Your task to perform on an android device: How do I get to the nearest T-Mobile Store? Image 0: 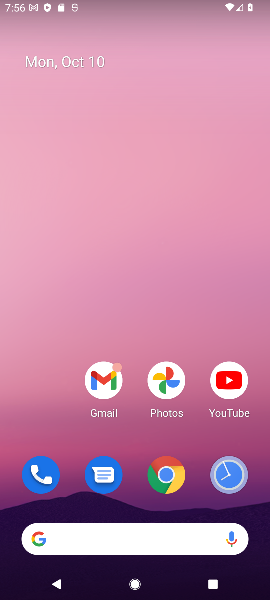
Step 0: drag from (138, 503) to (107, 149)
Your task to perform on an android device: How do I get to the nearest T-Mobile Store? Image 1: 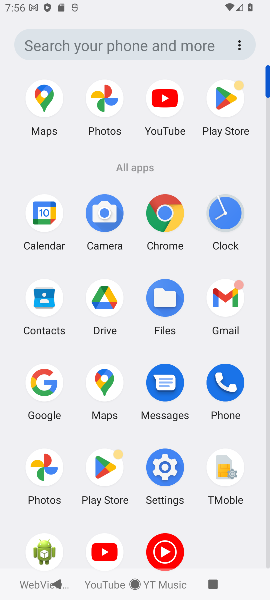
Step 1: click (106, 390)
Your task to perform on an android device: How do I get to the nearest T-Mobile Store? Image 2: 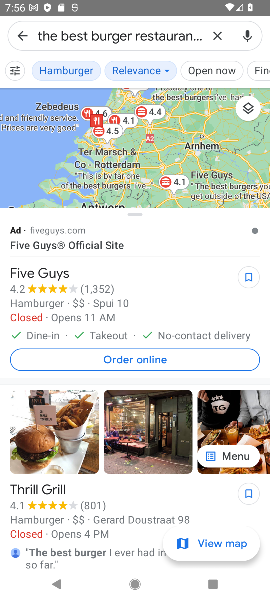
Step 2: click (214, 29)
Your task to perform on an android device: How do I get to the nearest T-Mobile Store? Image 3: 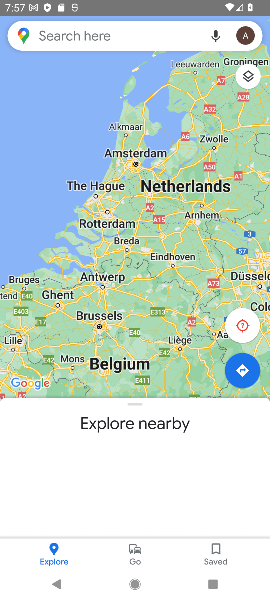
Step 3: type "the nearest T-Mobile Store"
Your task to perform on an android device: How do I get to the nearest T-Mobile Store? Image 4: 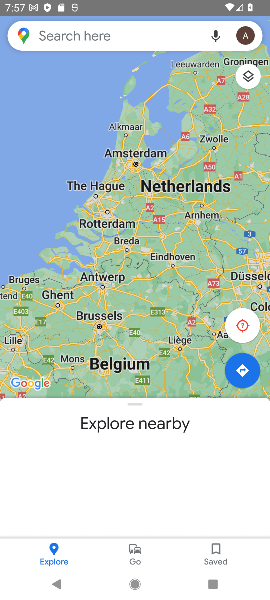
Step 4: click (101, 42)
Your task to perform on an android device: How do I get to the nearest T-Mobile Store? Image 5: 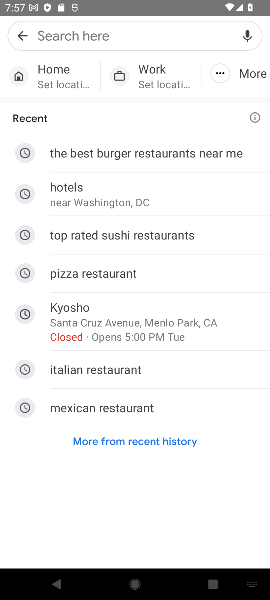
Step 5: type "the nearest T-Mobile Store"
Your task to perform on an android device: How do I get to the nearest T-Mobile Store? Image 6: 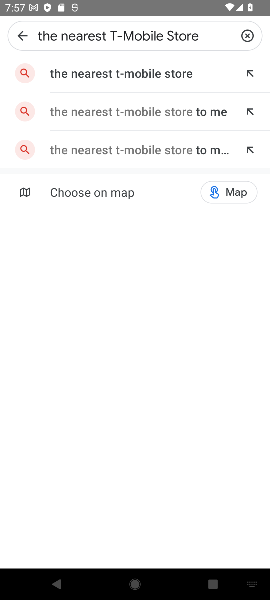
Step 6: click (125, 74)
Your task to perform on an android device: How do I get to the nearest T-Mobile Store? Image 7: 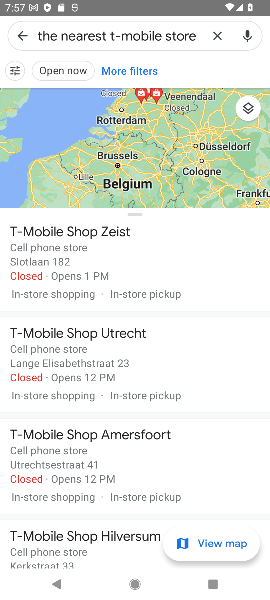
Step 7: task complete